Your task to perform on an android device: turn off data saver in the chrome app Image 0: 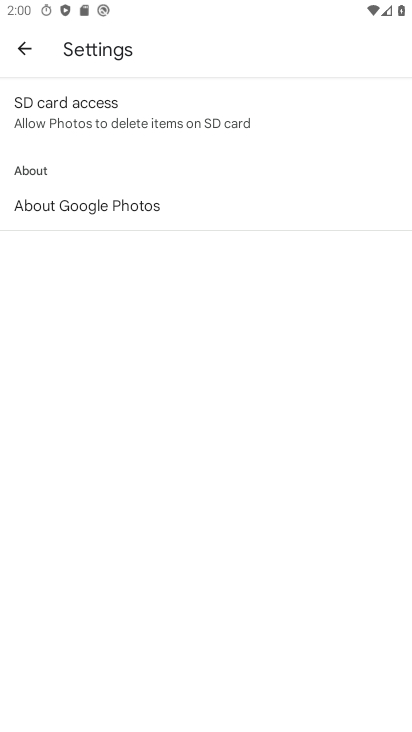
Step 0: press home button
Your task to perform on an android device: turn off data saver in the chrome app Image 1: 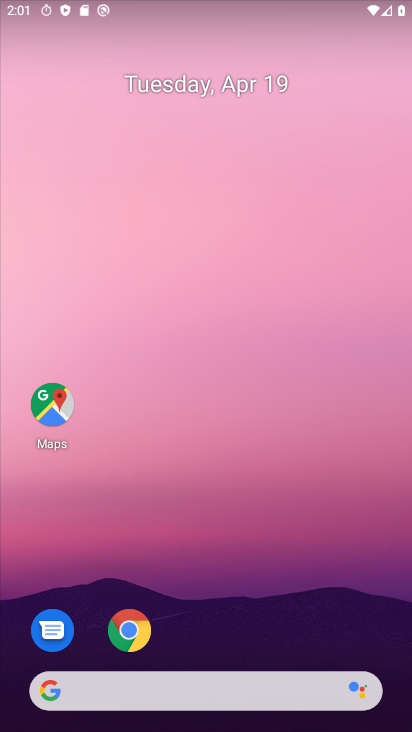
Step 1: click (130, 641)
Your task to perform on an android device: turn off data saver in the chrome app Image 2: 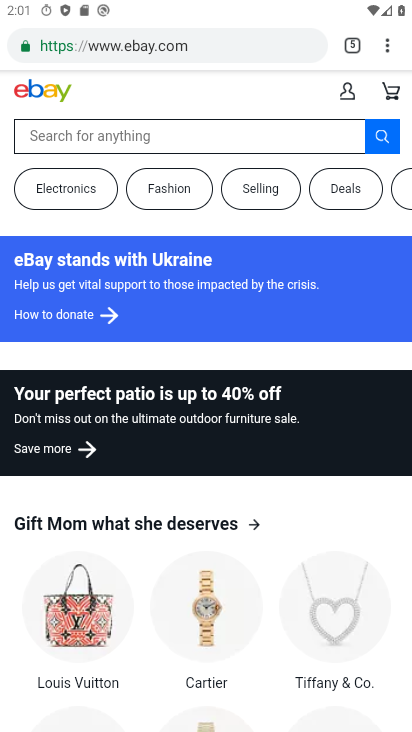
Step 2: click (389, 46)
Your task to perform on an android device: turn off data saver in the chrome app Image 3: 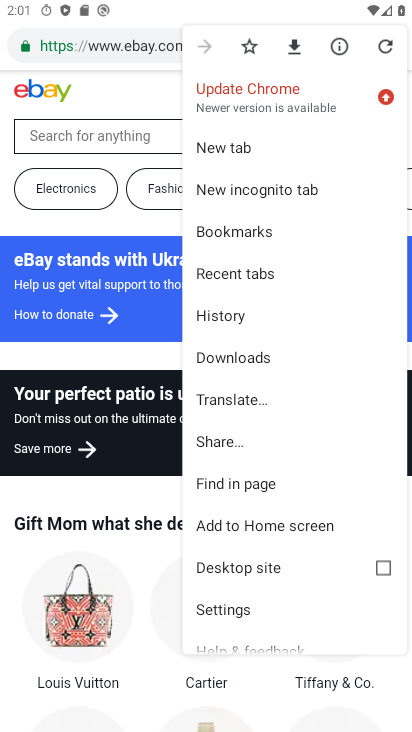
Step 3: click (241, 605)
Your task to perform on an android device: turn off data saver in the chrome app Image 4: 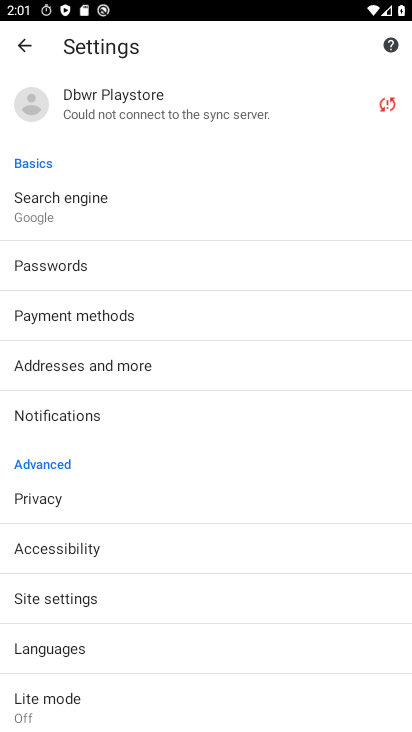
Step 4: click (75, 697)
Your task to perform on an android device: turn off data saver in the chrome app Image 5: 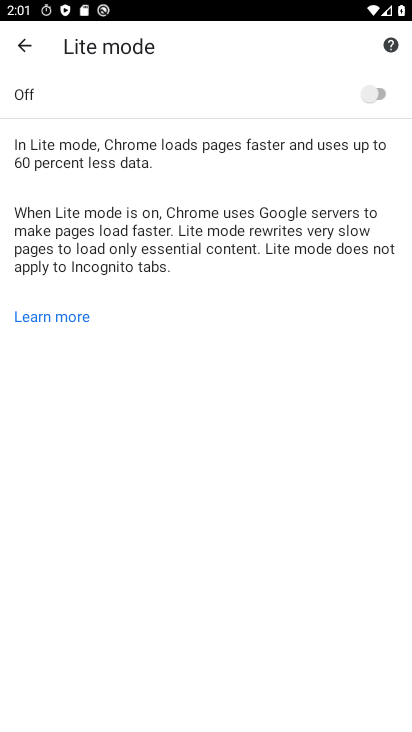
Step 5: task complete